Your task to perform on an android device: Open calendar and show me the second week of next month Image 0: 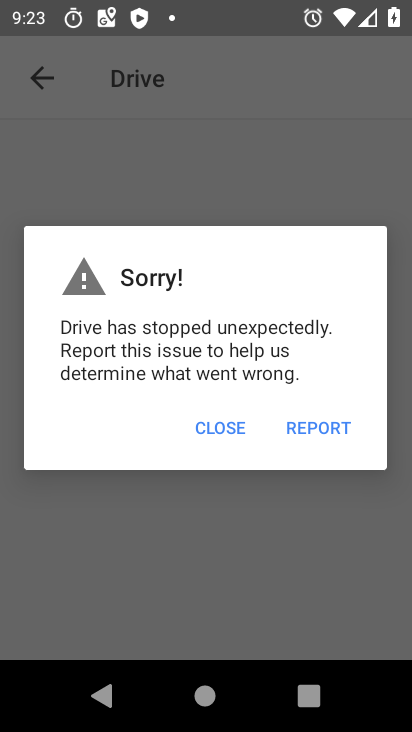
Step 0: press home button
Your task to perform on an android device: Open calendar and show me the second week of next month Image 1: 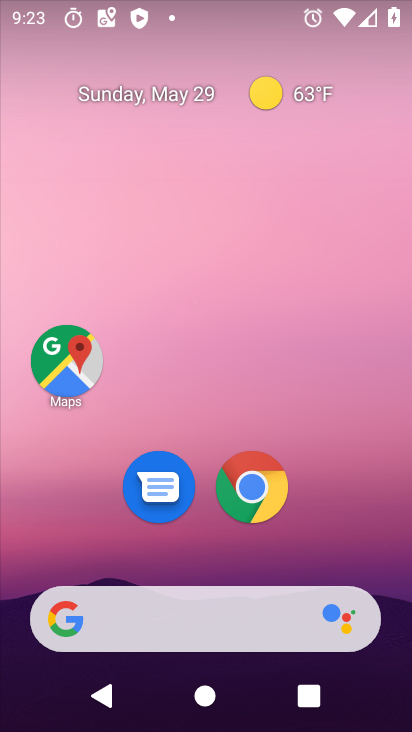
Step 1: drag from (192, 651) to (339, 9)
Your task to perform on an android device: Open calendar and show me the second week of next month Image 2: 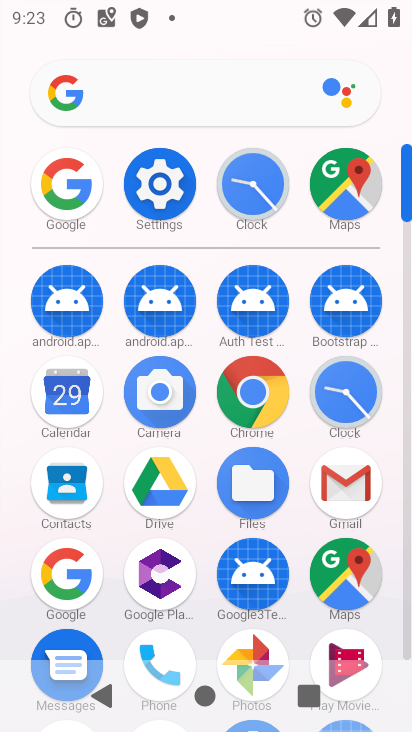
Step 2: drag from (198, 514) to (203, 222)
Your task to perform on an android device: Open calendar and show me the second week of next month Image 3: 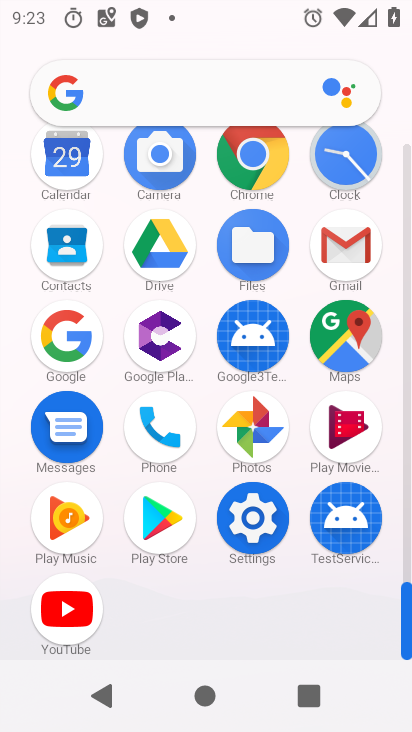
Step 3: click (83, 194)
Your task to perform on an android device: Open calendar and show me the second week of next month Image 4: 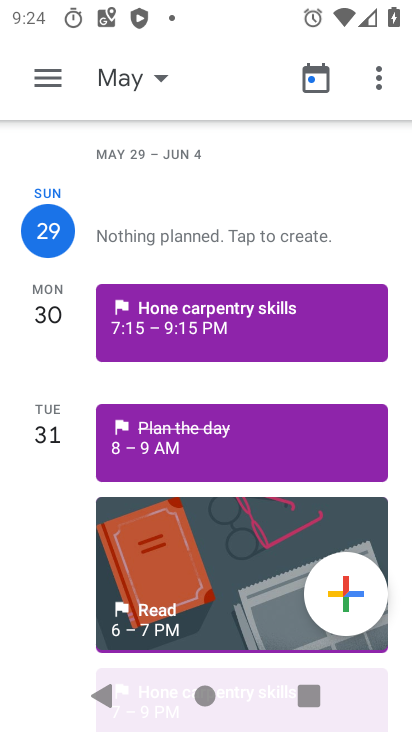
Step 4: click (154, 90)
Your task to perform on an android device: Open calendar and show me the second week of next month Image 5: 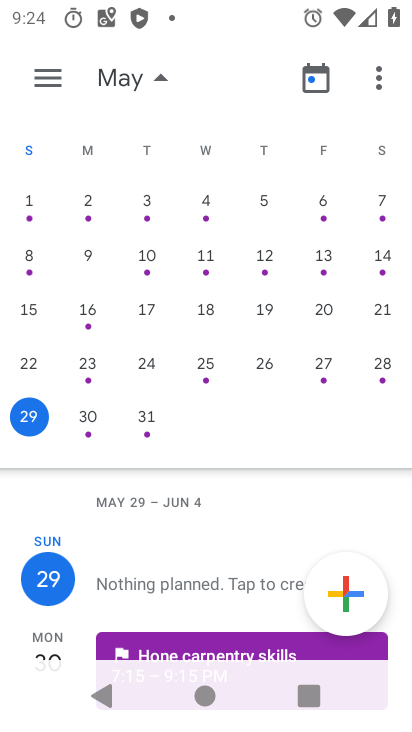
Step 5: drag from (348, 283) to (2, 283)
Your task to perform on an android device: Open calendar and show me the second week of next month Image 6: 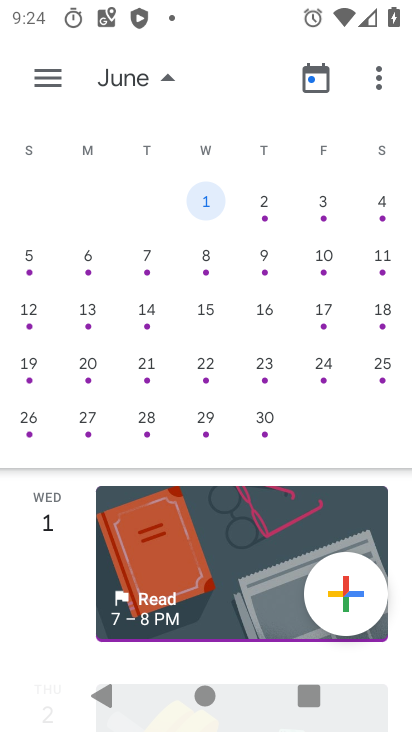
Step 6: click (34, 273)
Your task to perform on an android device: Open calendar and show me the second week of next month Image 7: 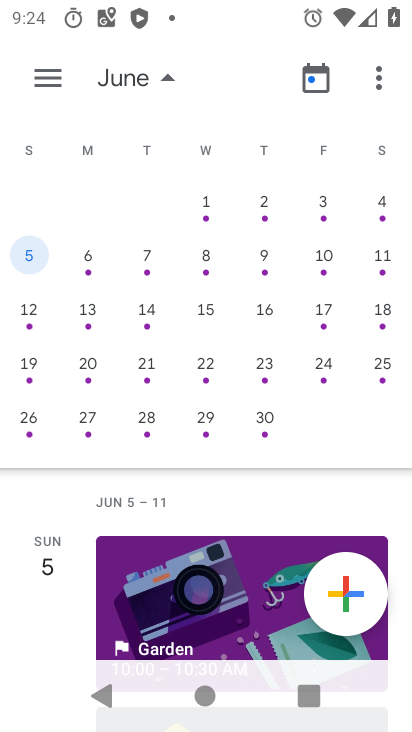
Step 7: task complete